Your task to perform on an android device: Open accessibility settings Image 0: 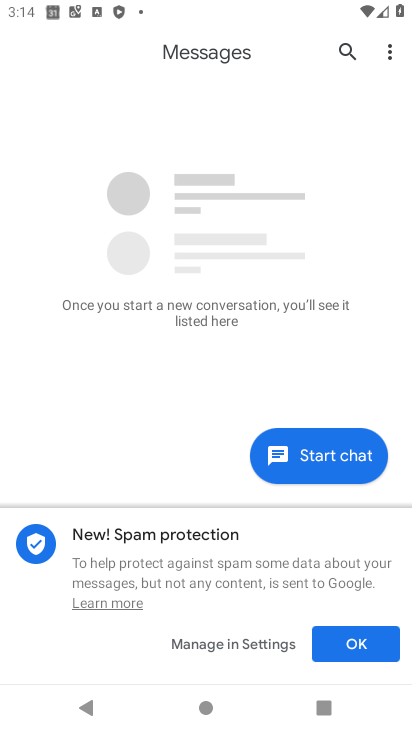
Step 0: press home button
Your task to perform on an android device: Open accessibility settings Image 1: 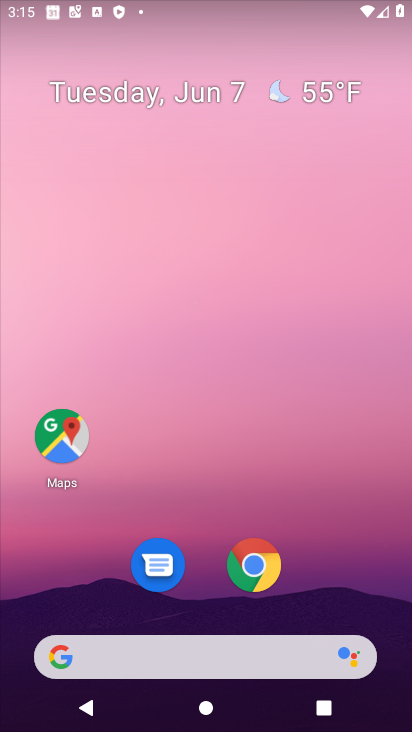
Step 1: drag from (175, 638) to (197, 78)
Your task to perform on an android device: Open accessibility settings Image 2: 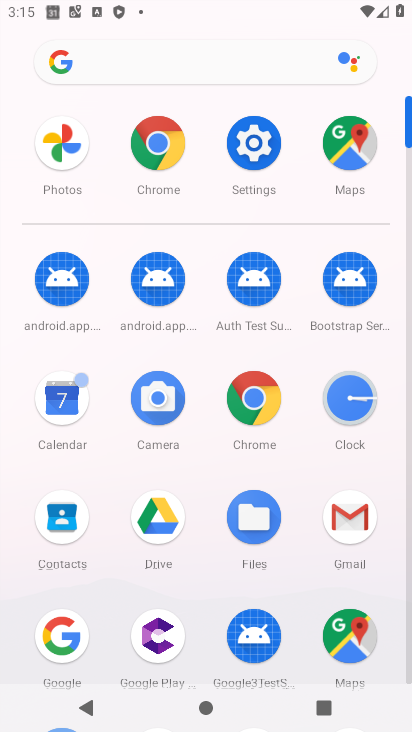
Step 2: click (252, 150)
Your task to perform on an android device: Open accessibility settings Image 3: 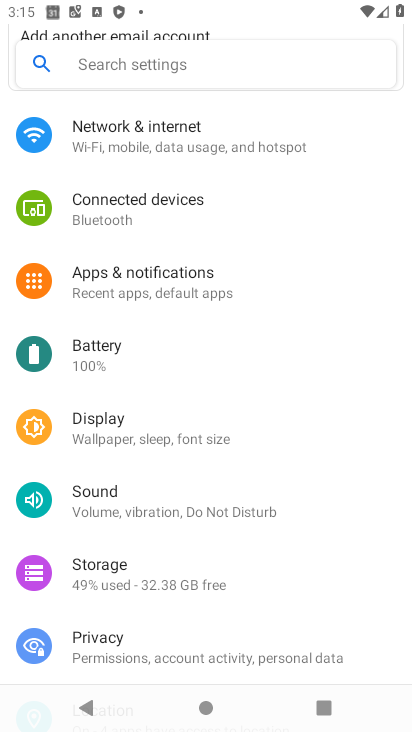
Step 3: drag from (168, 645) to (180, 83)
Your task to perform on an android device: Open accessibility settings Image 4: 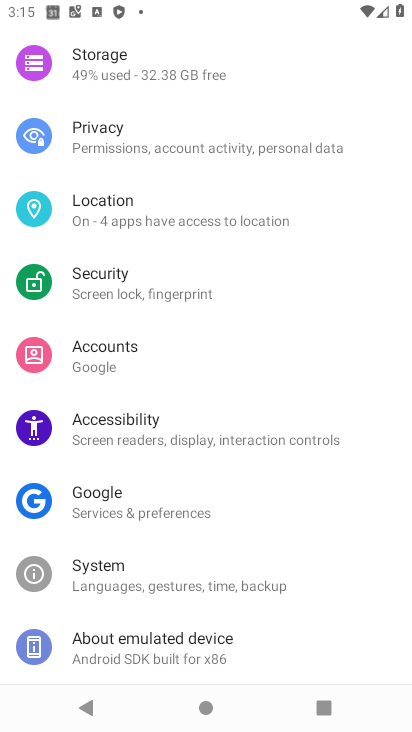
Step 4: click (194, 419)
Your task to perform on an android device: Open accessibility settings Image 5: 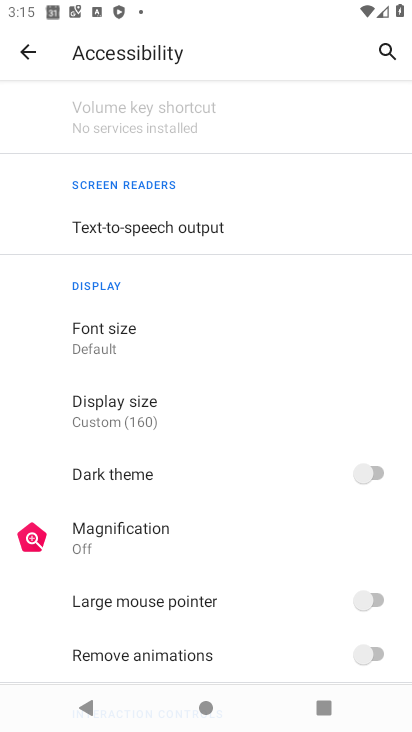
Step 5: task complete